Your task to perform on an android device: Go to eBay Image 0: 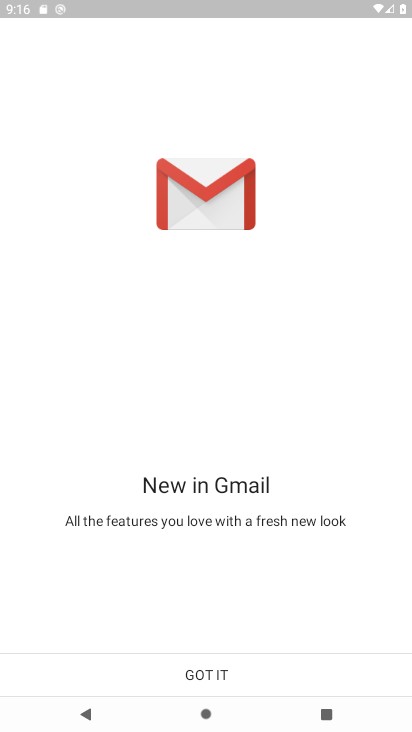
Step 0: press home button
Your task to perform on an android device: Go to eBay Image 1: 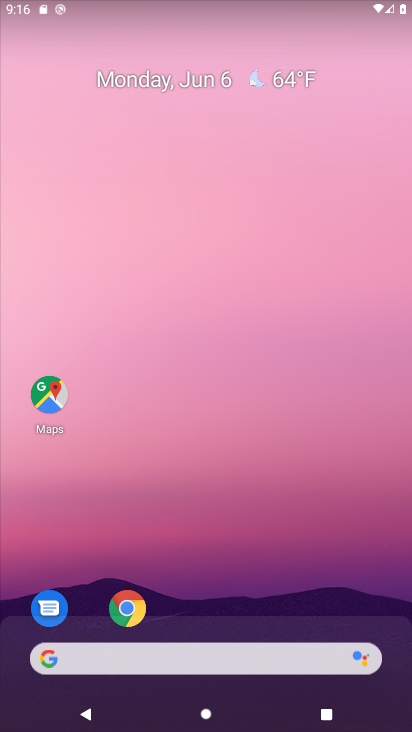
Step 1: click (125, 609)
Your task to perform on an android device: Go to eBay Image 2: 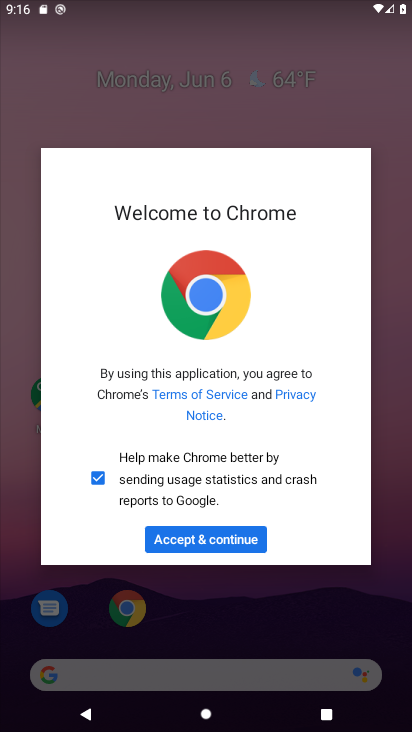
Step 2: click (194, 544)
Your task to perform on an android device: Go to eBay Image 3: 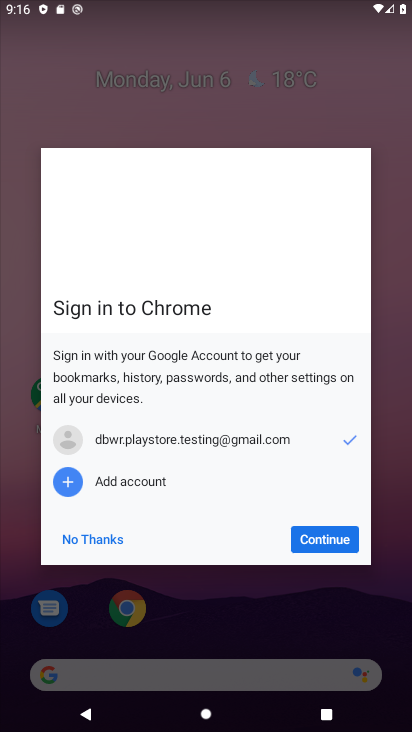
Step 3: click (321, 543)
Your task to perform on an android device: Go to eBay Image 4: 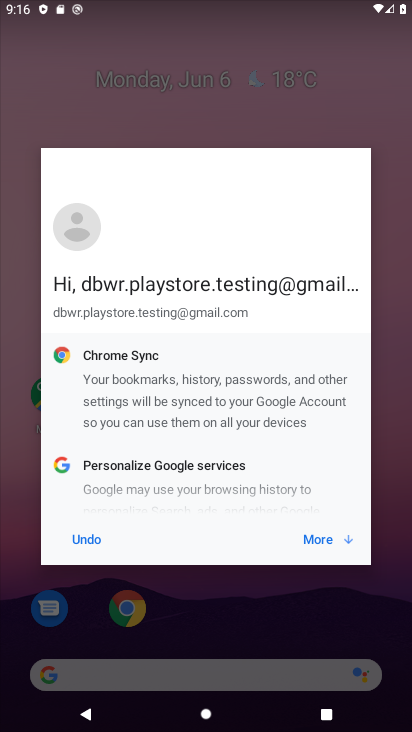
Step 4: click (321, 543)
Your task to perform on an android device: Go to eBay Image 5: 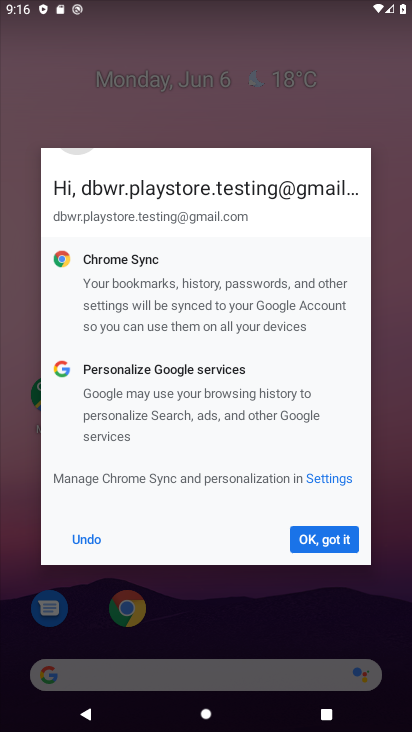
Step 5: click (321, 543)
Your task to perform on an android device: Go to eBay Image 6: 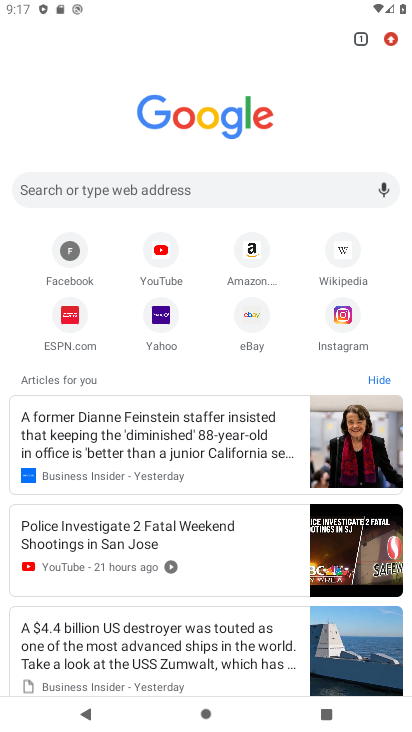
Step 6: click (255, 322)
Your task to perform on an android device: Go to eBay Image 7: 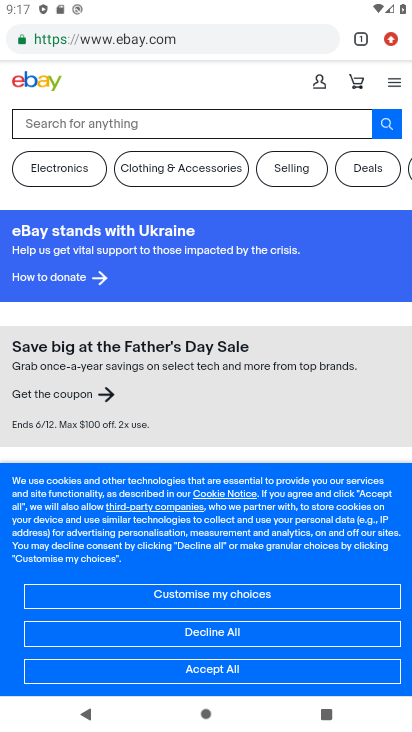
Step 7: task complete